Your task to perform on an android device: Go to notification settings Image 0: 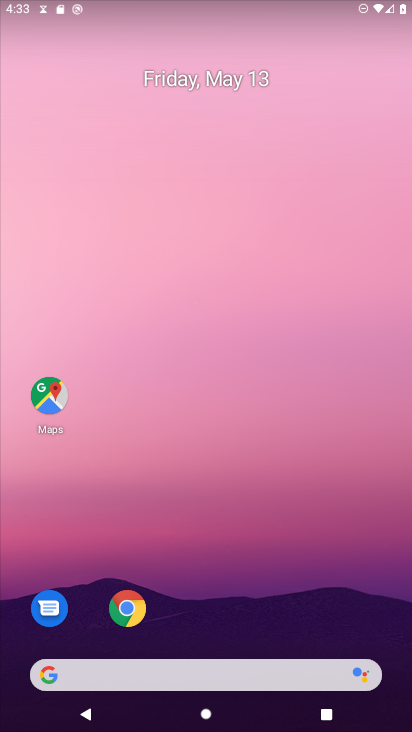
Step 0: drag from (296, 629) to (257, 1)
Your task to perform on an android device: Go to notification settings Image 1: 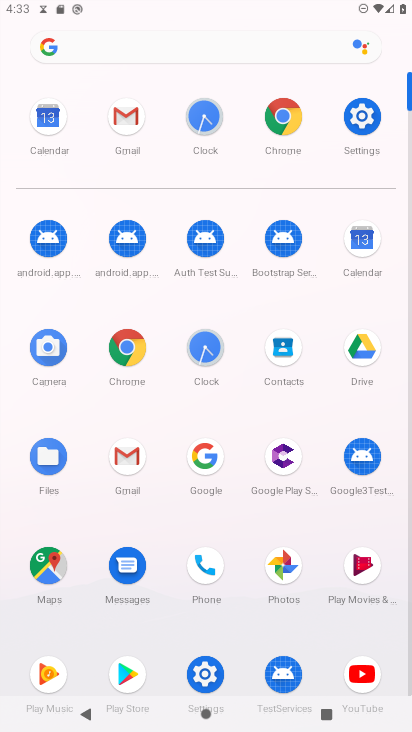
Step 1: click (349, 117)
Your task to perform on an android device: Go to notification settings Image 2: 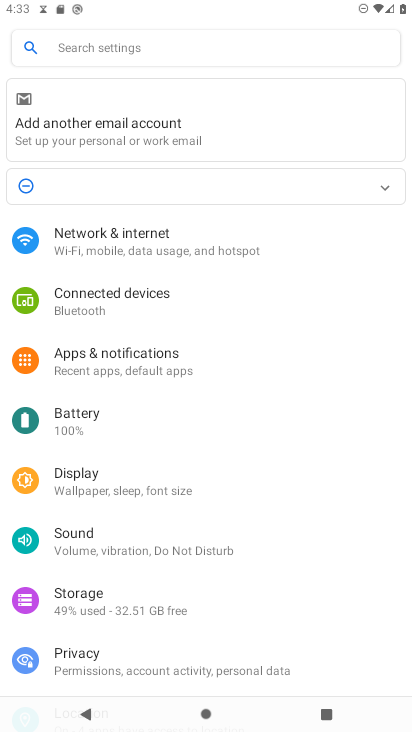
Step 2: click (116, 364)
Your task to perform on an android device: Go to notification settings Image 3: 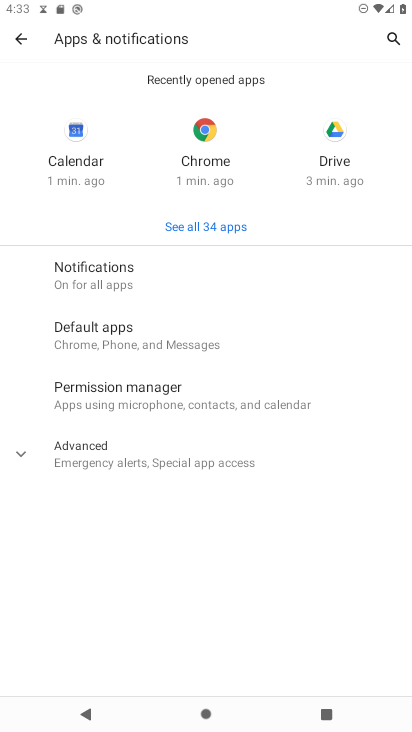
Step 3: click (135, 280)
Your task to perform on an android device: Go to notification settings Image 4: 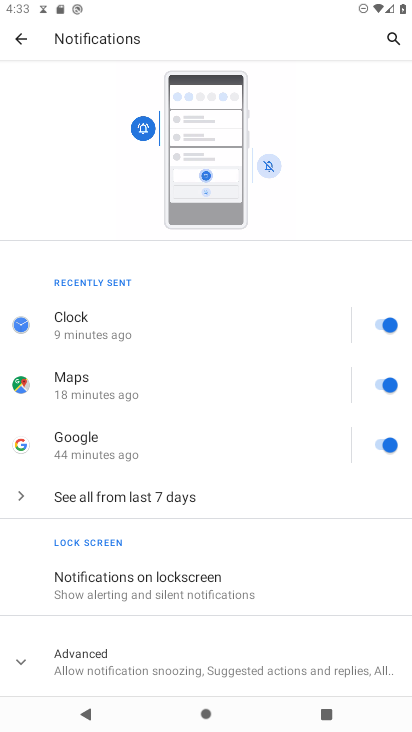
Step 4: task complete